Your task to perform on an android device: Do I have any events this weekend? Image 0: 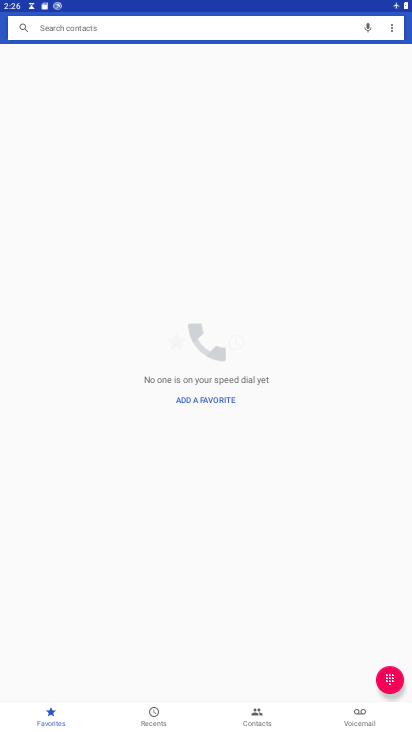
Step 0: press home button
Your task to perform on an android device: Do I have any events this weekend? Image 1: 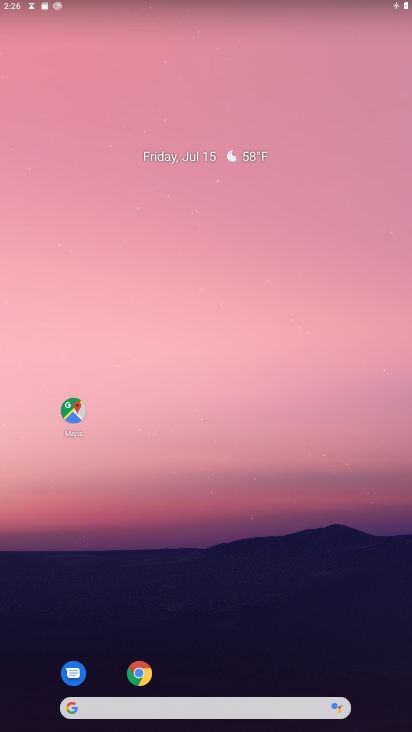
Step 1: drag from (403, 565) to (352, 85)
Your task to perform on an android device: Do I have any events this weekend? Image 2: 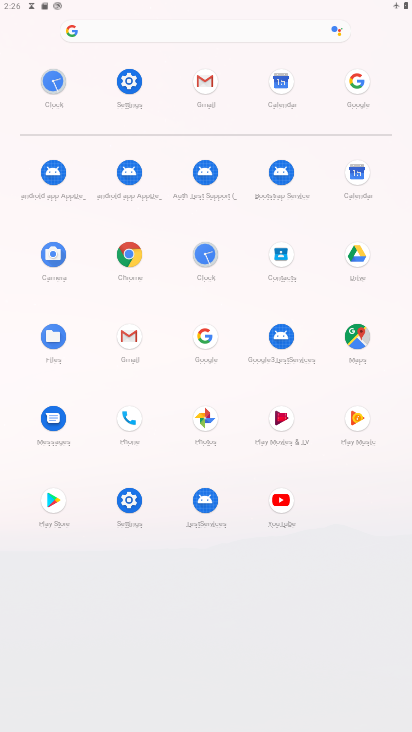
Step 2: click (356, 168)
Your task to perform on an android device: Do I have any events this weekend? Image 3: 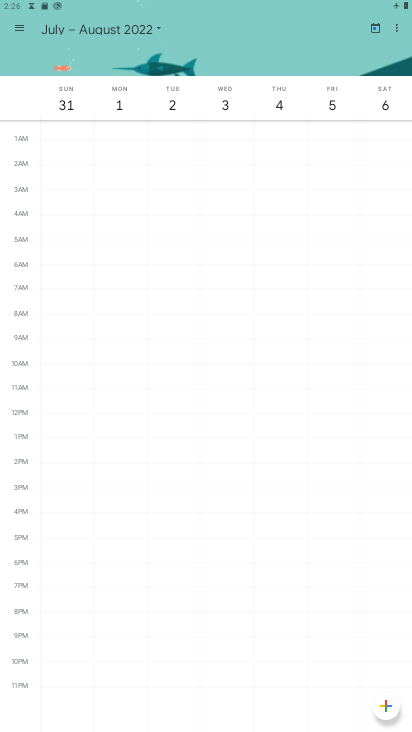
Step 3: click (156, 26)
Your task to perform on an android device: Do I have any events this weekend? Image 4: 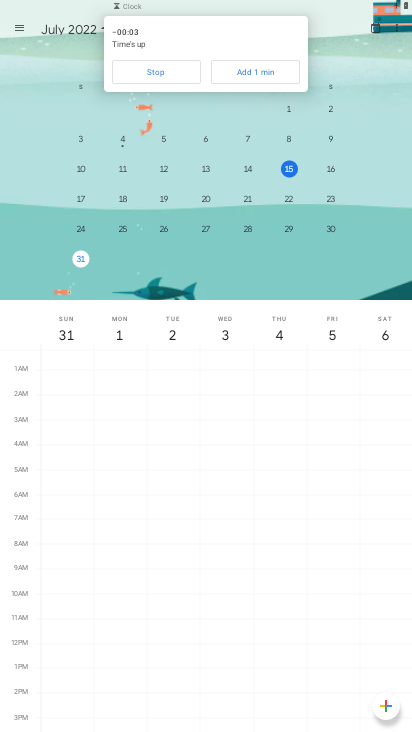
Step 4: click (329, 168)
Your task to perform on an android device: Do I have any events this weekend? Image 5: 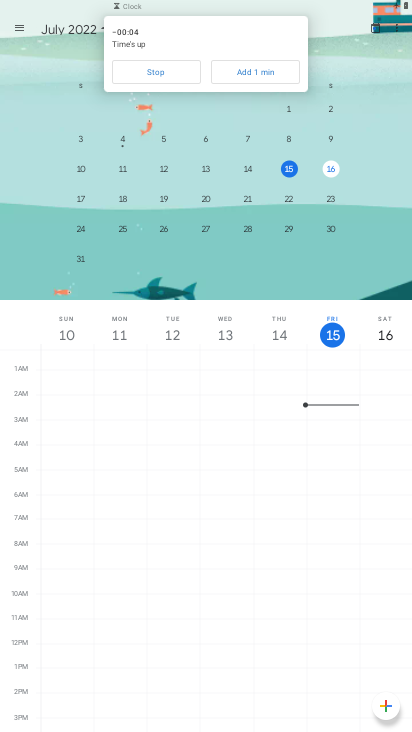
Step 5: click (182, 69)
Your task to perform on an android device: Do I have any events this weekend? Image 6: 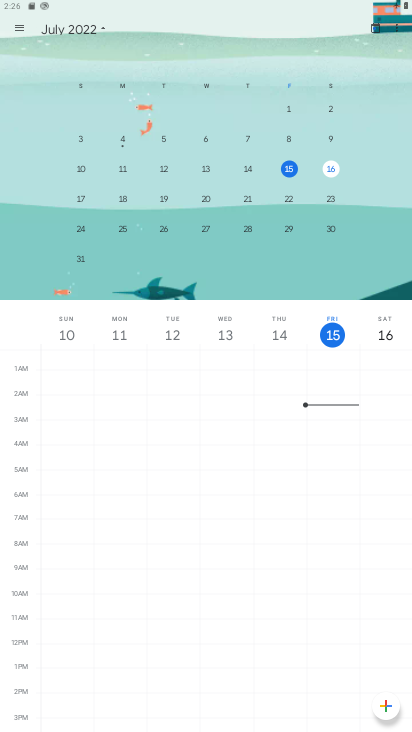
Step 6: click (22, 28)
Your task to perform on an android device: Do I have any events this weekend? Image 7: 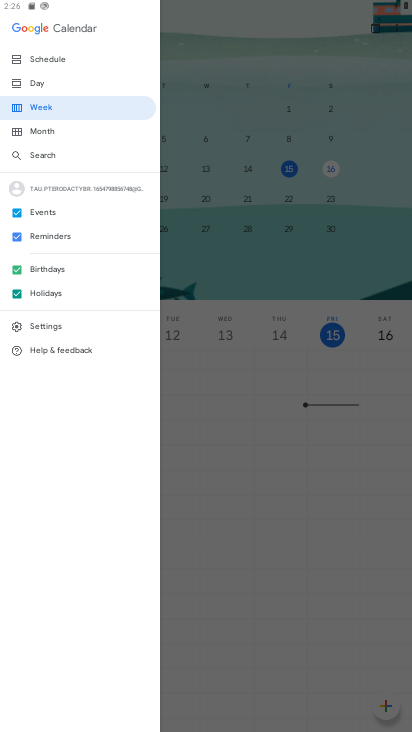
Step 7: click (44, 108)
Your task to perform on an android device: Do I have any events this weekend? Image 8: 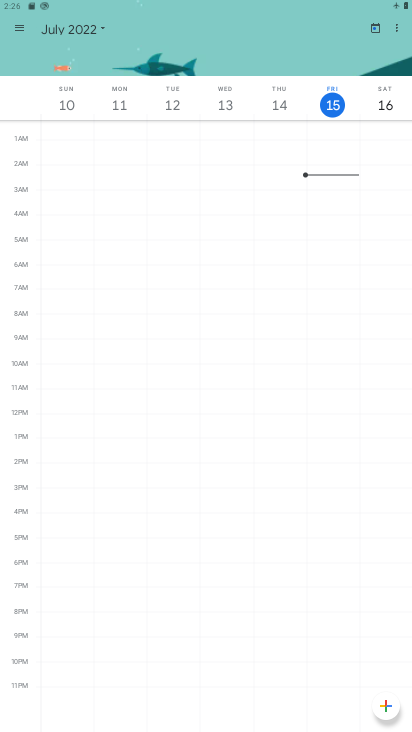
Step 8: click (20, 24)
Your task to perform on an android device: Do I have any events this weekend? Image 9: 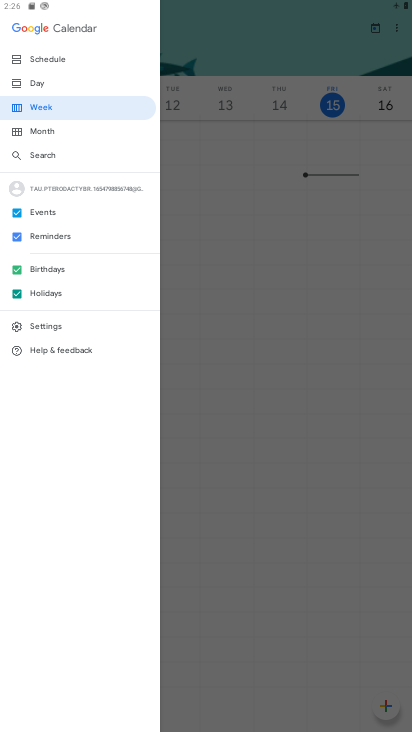
Step 9: click (37, 57)
Your task to perform on an android device: Do I have any events this weekend? Image 10: 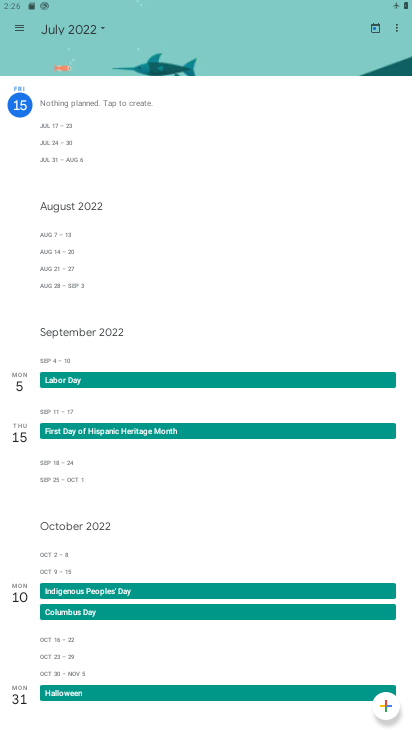
Step 10: task complete